Your task to perform on an android device: allow notifications from all sites in the chrome app Image 0: 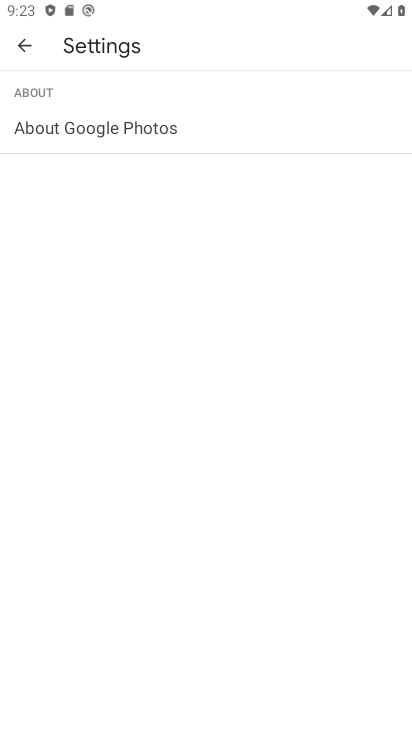
Step 0: press home button
Your task to perform on an android device: allow notifications from all sites in the chrome app Image 1: 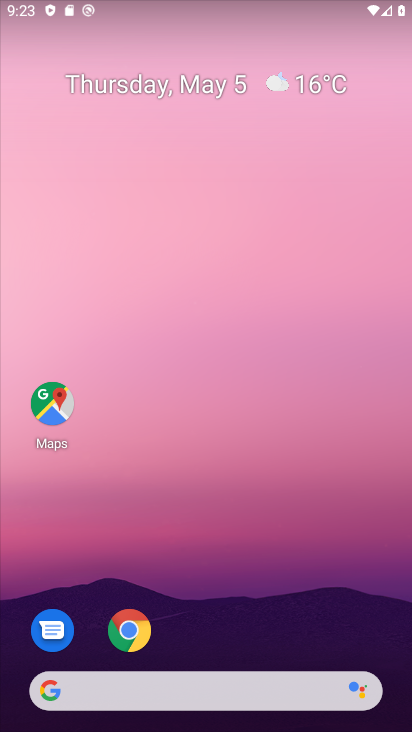
Step 1: click (121, 641)
Your task to perform on an android device: allow notifications from all sites in the chrome app Image 2: 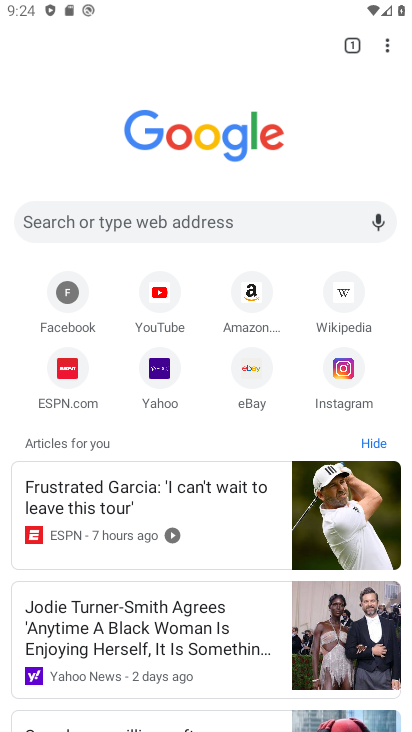
Step 2: drag from (388, 43) to (258, 383)
Your task to perform on an android device: allow notifications from all sites in the chrome app Image 3: 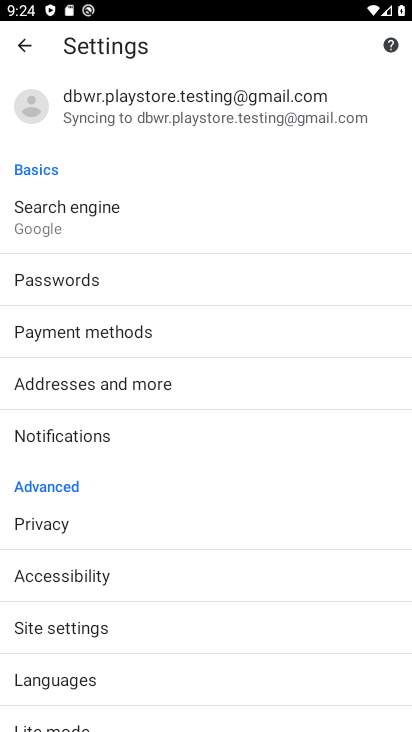
Step 3: click (103, 635)
Your task to perform on an android device: allow notifications from all sites in the chrome app Image 4: 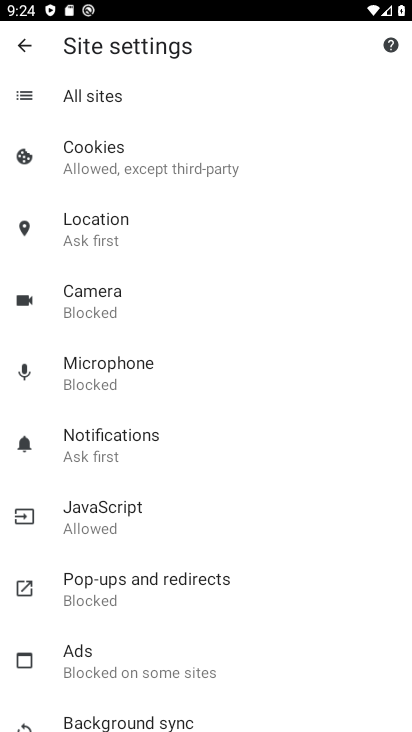
Step 4: click (114, 444)
Your task to perform on an android device: allow notifications from all sites in the chrome app Image 5: 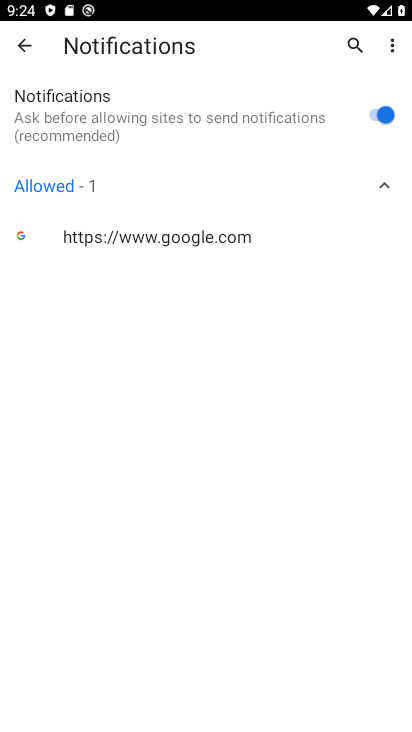
Step 5: task complete